Your task to perform on an android device: Find coffee shops on Maps Image 0: 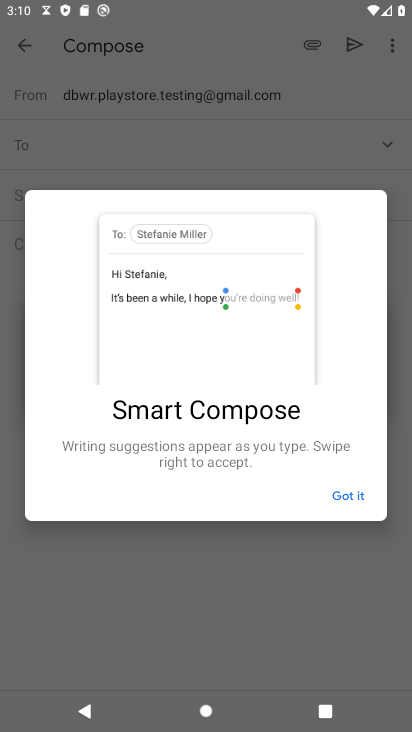
Step 0: press home button
Your task to perform on an android device: Find coffee shops on Maps Image 1: 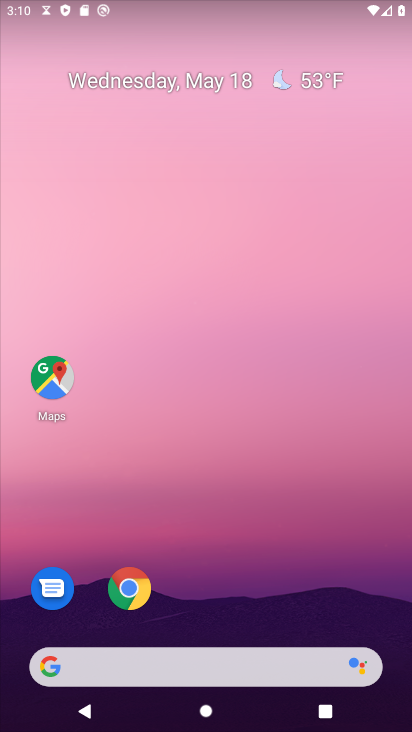
Step 1: click (38, 397)
Your task to perform on an android device: Find coffee shops on Maps Image 2: 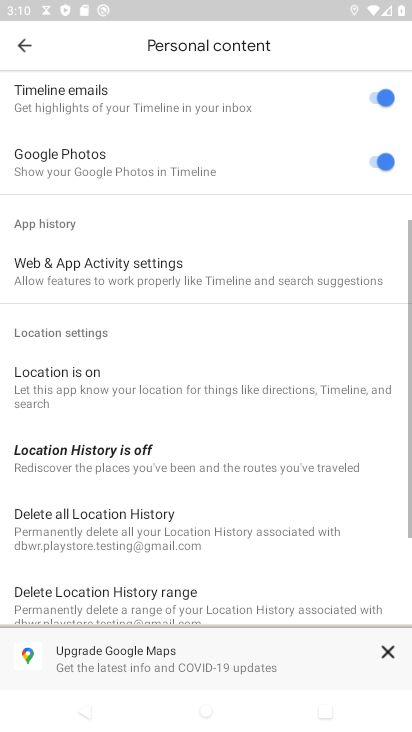
Step 2: click (26, 56)
Your task to perform on an android device: Find coffee shops on Maps Image 3: 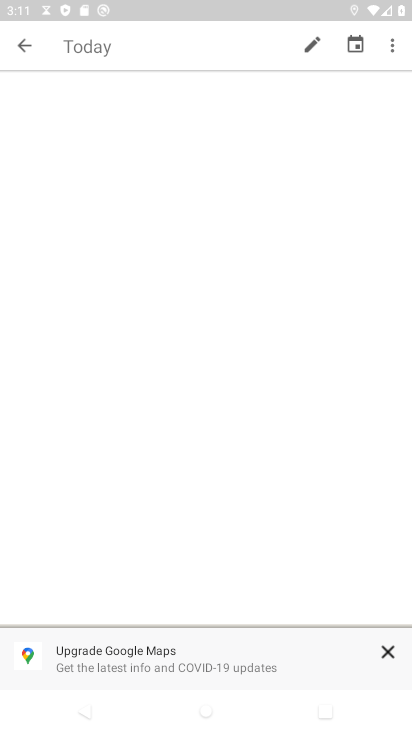
Step 3: click (26, 56)
Your task to perform on an android device: Find coffee shops on Maps Image 4: 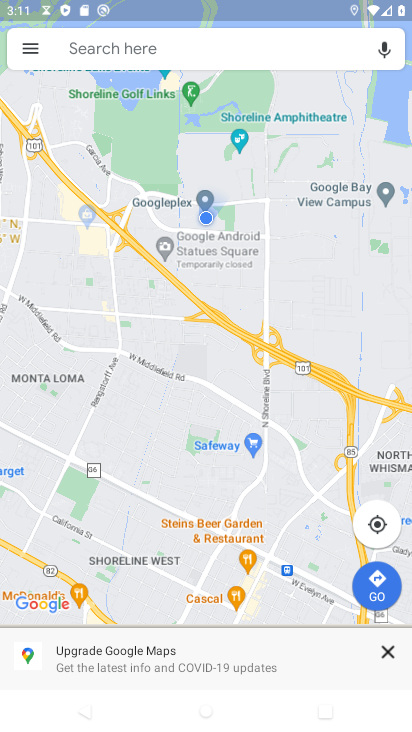
Step 4: click (155, 43)
Your task to perform on an android device: Find coffee shops on Maps Image 5: 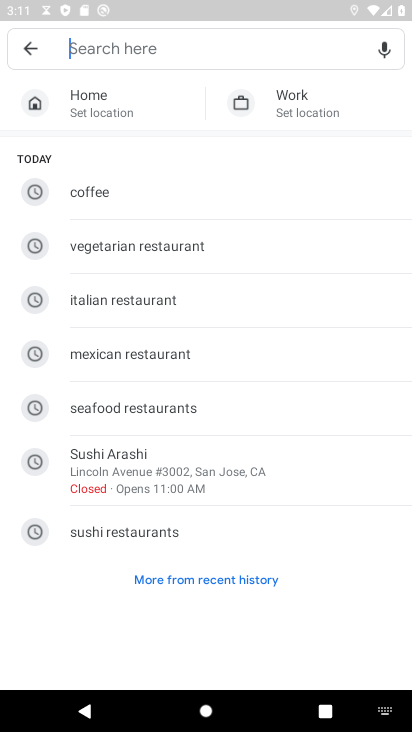
Step 5: type "coffee shops "
Your task to perform on an android device: Find coffee shops on Maps Image 6: 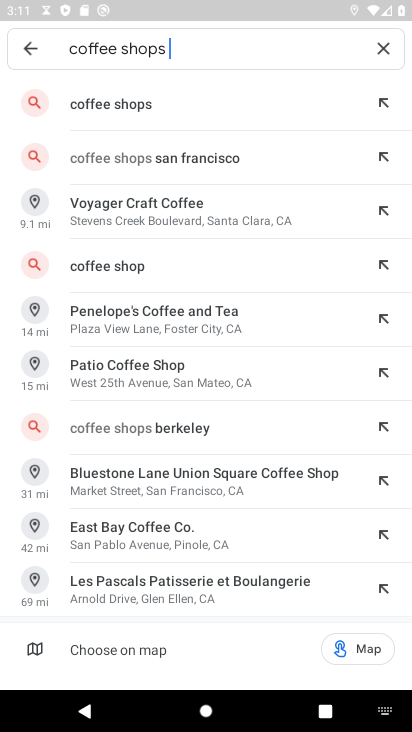
Step 6: click (151, 98)
Your task to perform on an android device: Find coffee shops on Maps Image 7: 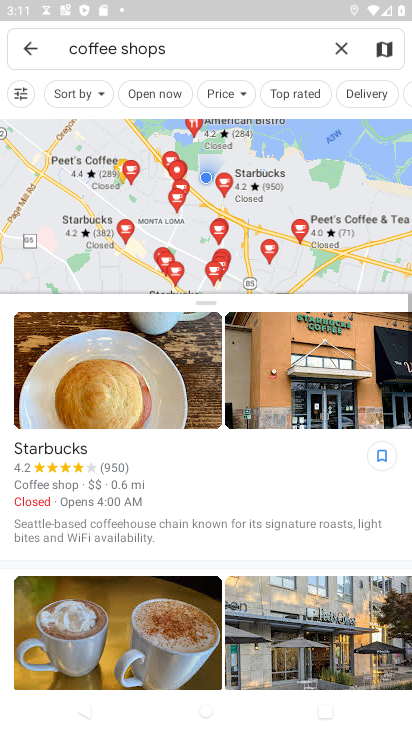
Step 7: task complete